Your task to perform on an android device: change the clock display to digital Image 0: 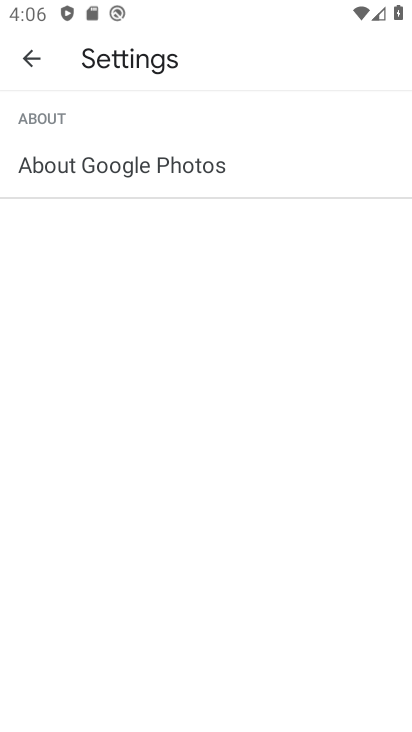
Step 0: press back button
Your task to perform on an android device: change the clock display to digital Image 1: 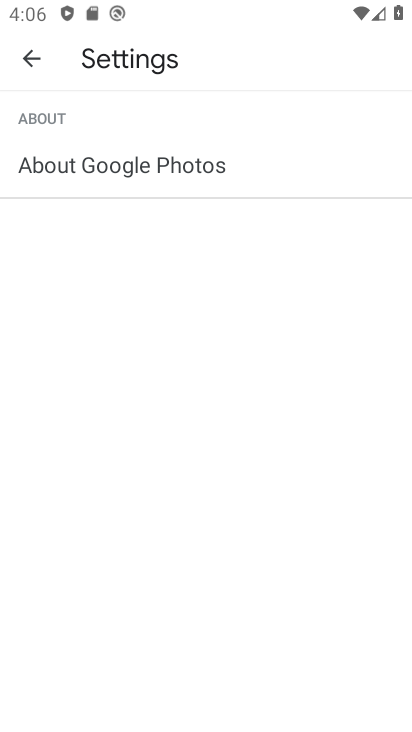
Step 1: press back button
Your task to perform on an android device: change the clock display to digital Image 2: 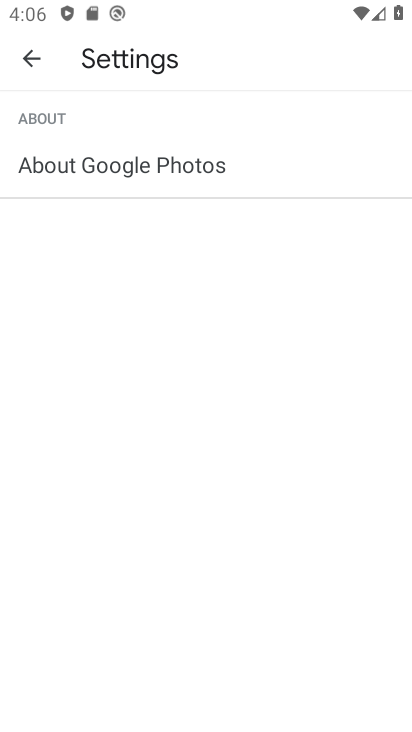
Step 2: press home button
Your task to perform on an android device: change the clock display to digital Image 3: 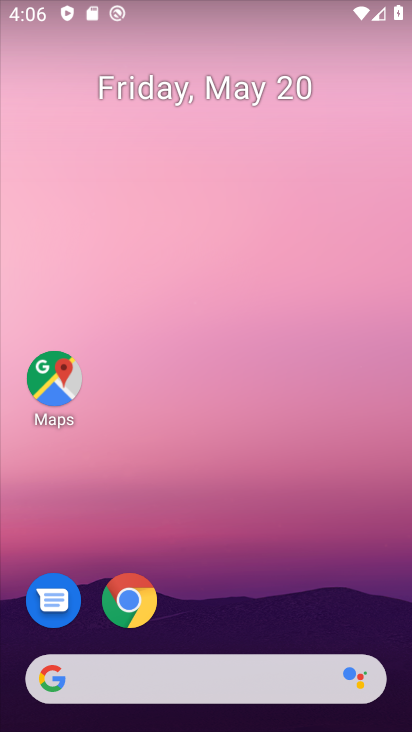
Step 3: drag from (282, 594) to (261, 12)
Your task to perform on an android device: change the clock display to digital Image 4: 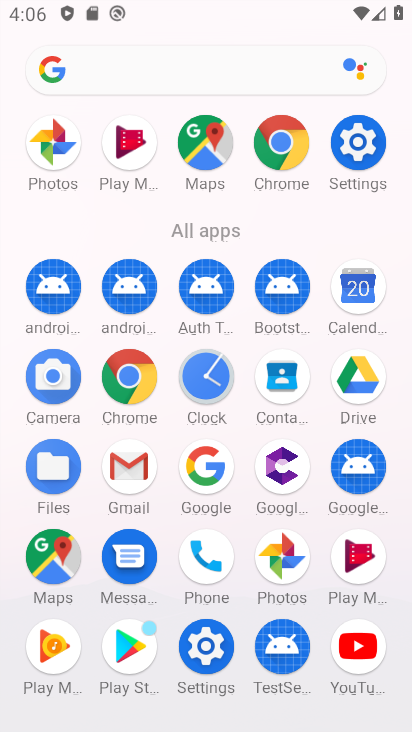
Step 4: drag from (11, 522) to (40, 318)
Your task to perform on an android device: change the clock display to digital Image 5: 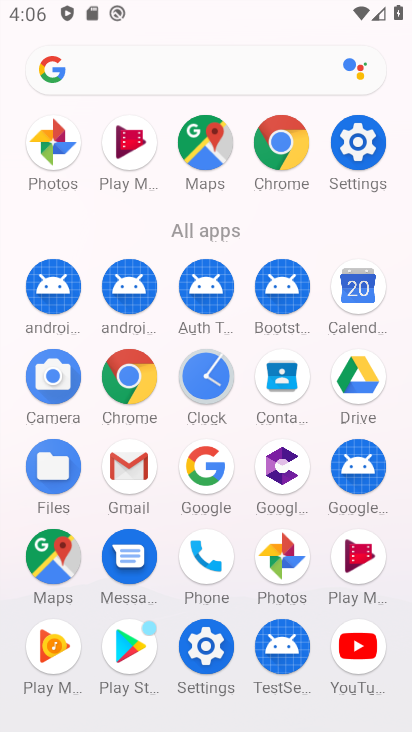
Step 5: click (204, 379)
Your task to perform on an android device: change the clock display to digital Image 6: 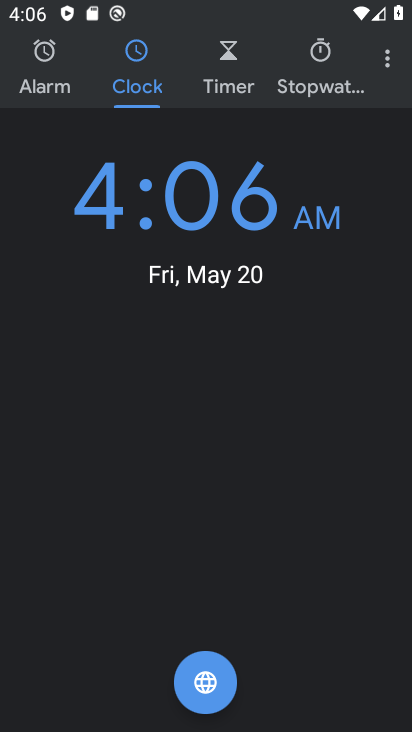
Step 6: drag from (384, 57) to (269, 109)
Your task to perform on an android device: change the clock display to digital Image 7: 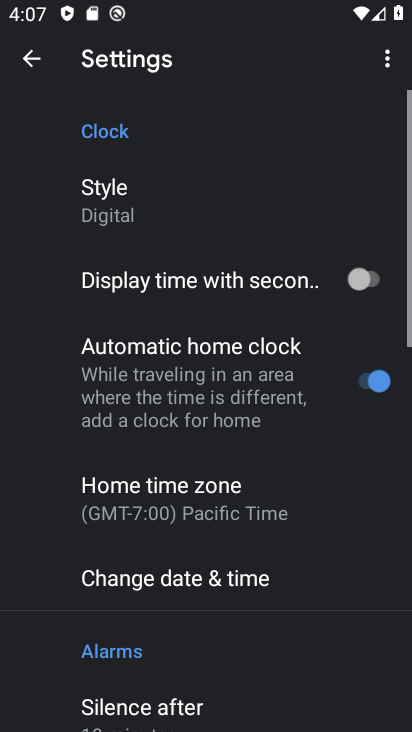
Step 7: click (148, 187)
Your task to perform on an android device: change the clock display to digital Image 8: 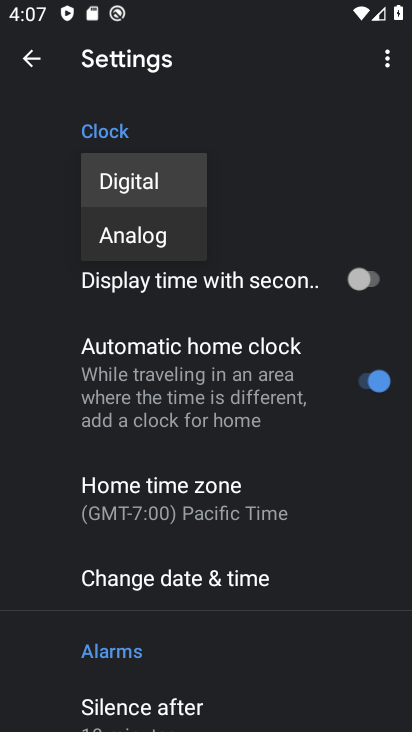
Step 8: click (147, 186)
Your task to perform on an android device: change the clock display to digital Image 9: 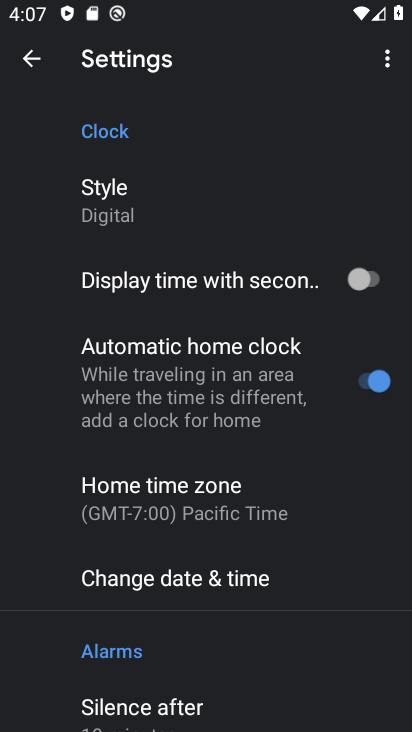
Step 9: task complete